Your task to perform on an android device: Open Yahoo.com Image 0: 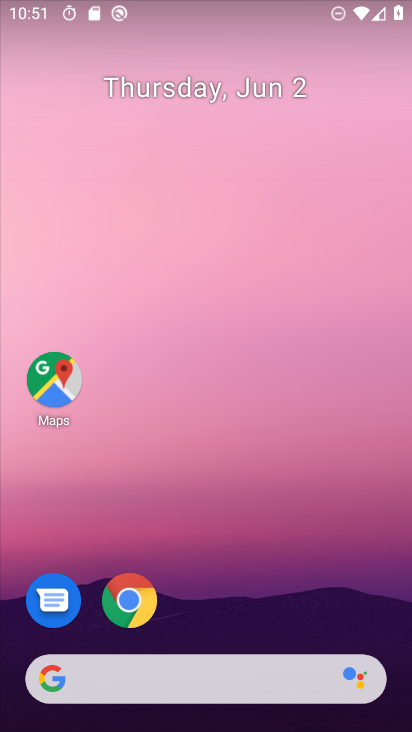
Step 0: click (130, 603)
Your task to perform on an android device: Open Yahoo.com Image 1: 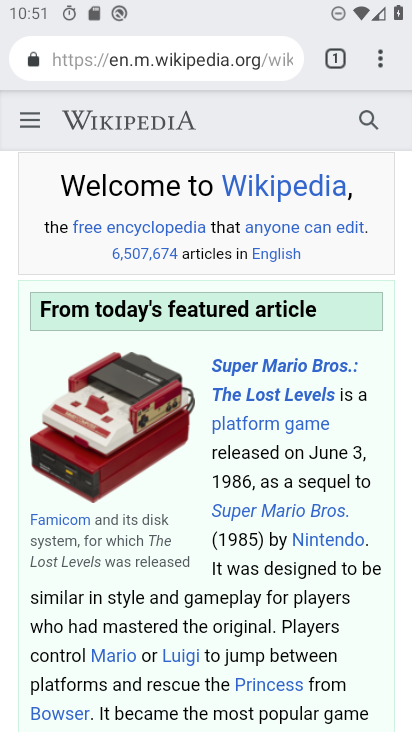
Step 1: task complete